Your task to perform on an android device: Turn off the flashlight Image 0: 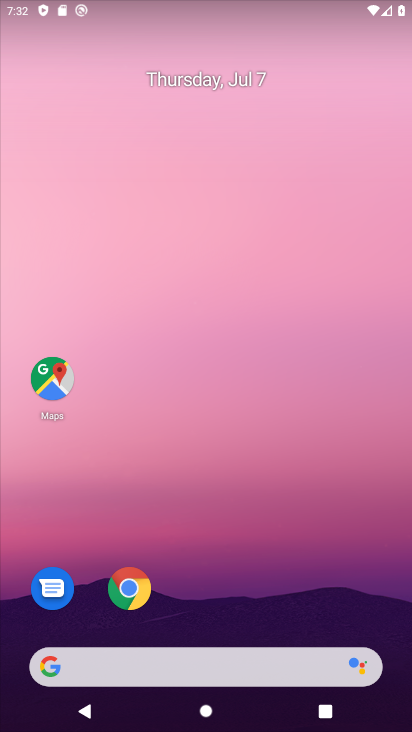
Step 0: drag from (235, 524) to (252, 220)
Your task to perform on an android device: Turn off the flashlight Image 1: 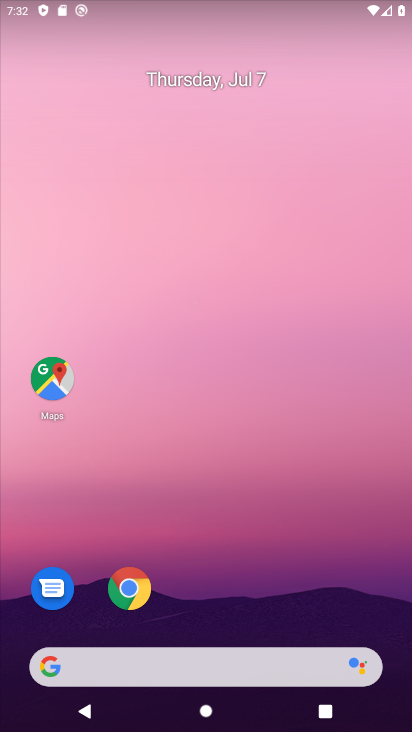
Step 1: drag from (213, 606) to (223, 207)
Your task to perform on an android device: Turn off the flashlight Image 2: 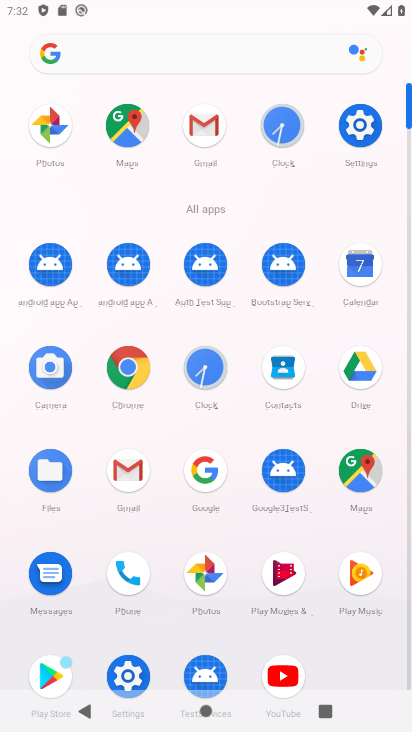
Step 2: click (361, 127)
Your task to perform on an android device: Turn off the flashlight Image 3: 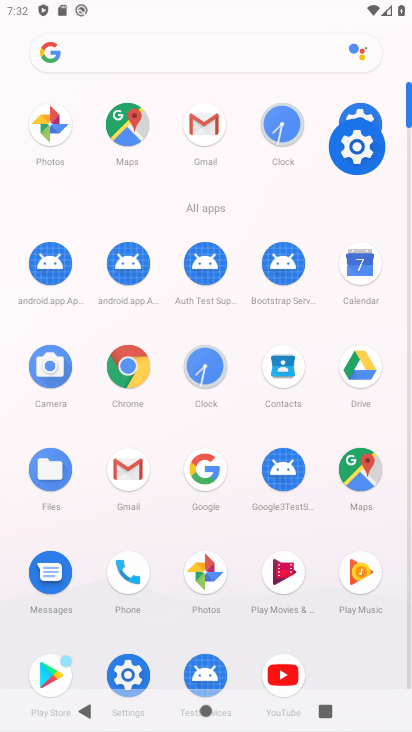
Step 3: click (361, 144)
Your task to perform on an android device: Turn off the flashlight Image 4: 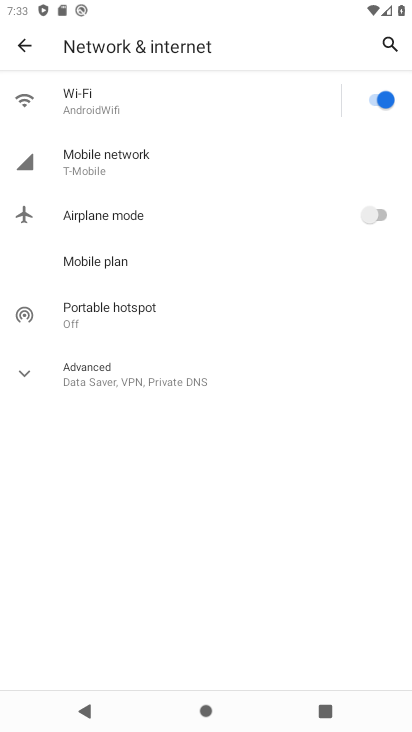
Step 4: click (27, 53)
Your task to perform on an android device: Turn off the flashlight Image 5: 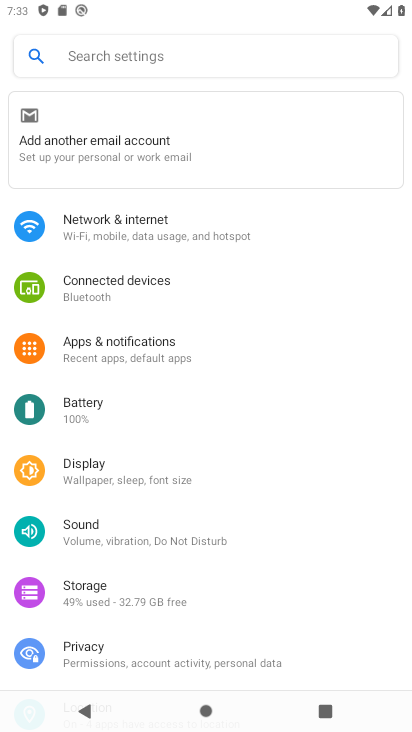
Step 5: click (123, 68)
Your task to perform on an android device: Turn off the flashlight Image 6: 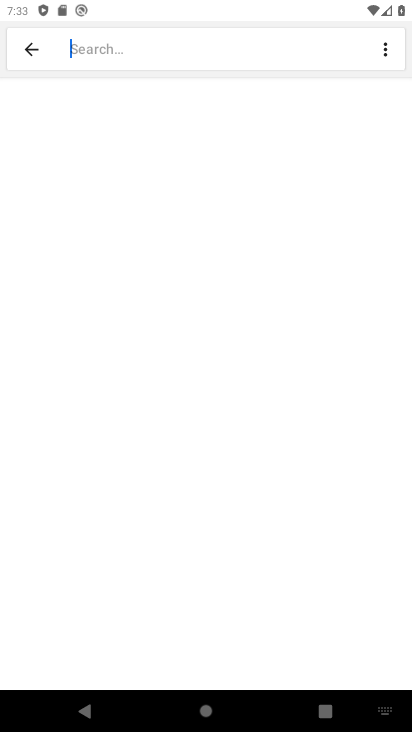
Step 6: click (121, 44)
Your task to perform on an android device: Turn off the flashlight Image 7: 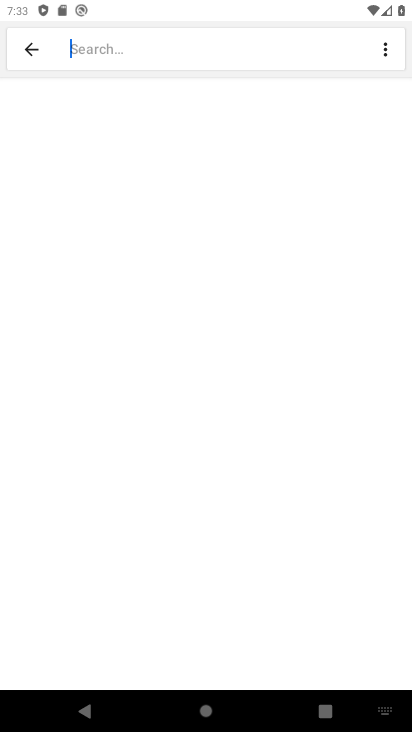
Step 7: type " flashlight"
Your task to perform on an android device: Turn off the flashlight Image 8: 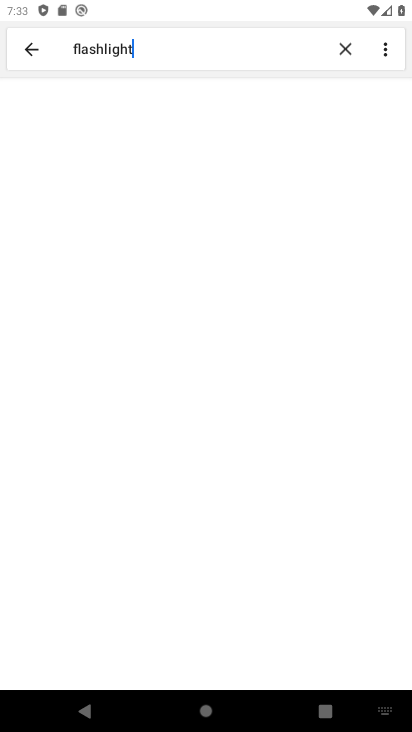
Step 8: type ""
Your task to perform on an android device: Turn off the flashlight Image 9: 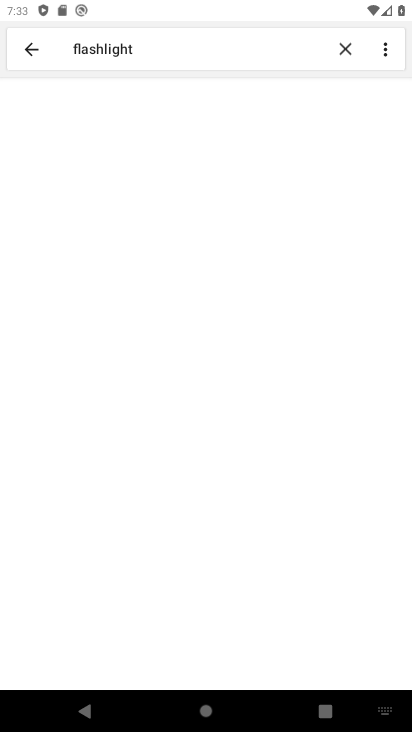
Step 9: drag from (232, 461) to (248, 229)
Your task to perform on an android device: Turn off the flashlight Image 10: 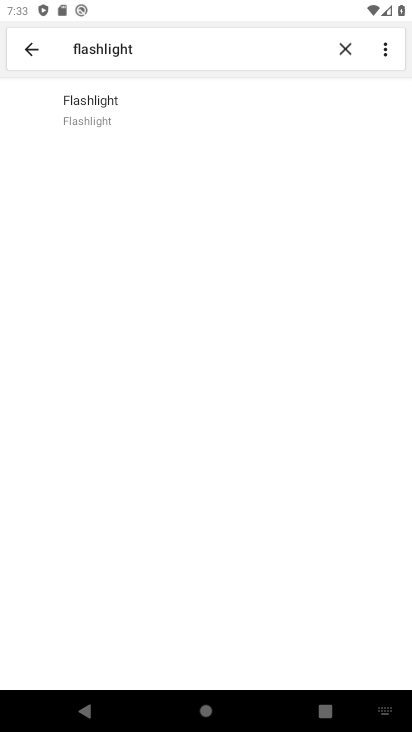
Step 10: click (119, 95)
Your task to perform on an android device: Turn off the flashlight Image 11: 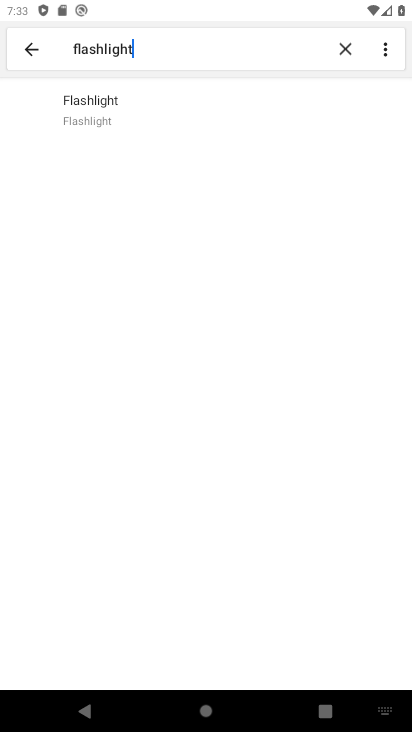
Step 11: drag from (256, 419) to (256, 215)
Your task to perform on an android device: Turn off the flashlight Image 12: 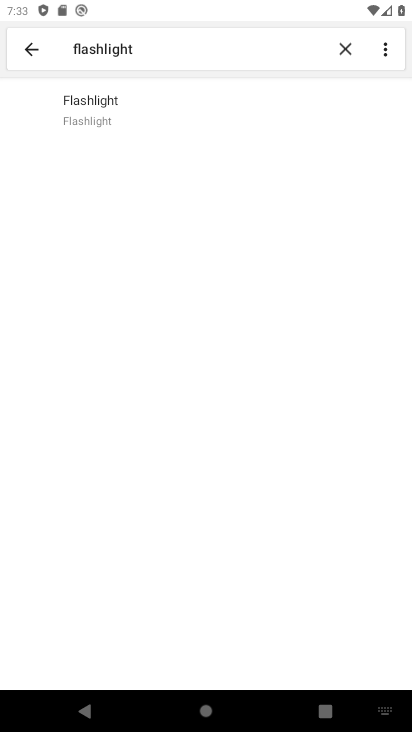
Step 12: click (133, 99)
Your task to perform on an android device: Turn off the flashlight Image 13: 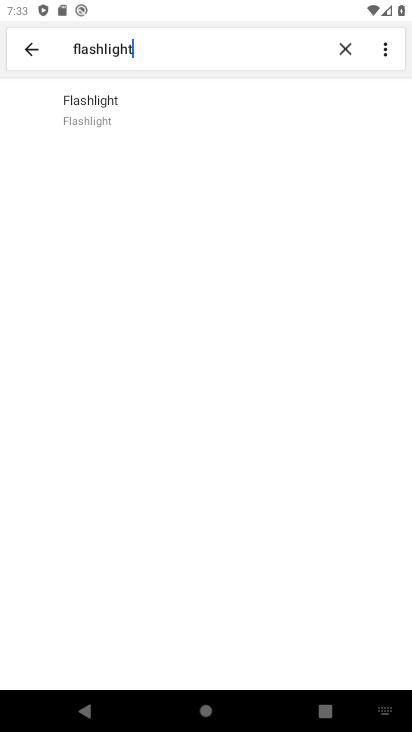
Step 13: drag from (331, 104) to (184, 130)
Your task to perform on an android device: Turn off the flashlight Image 14: 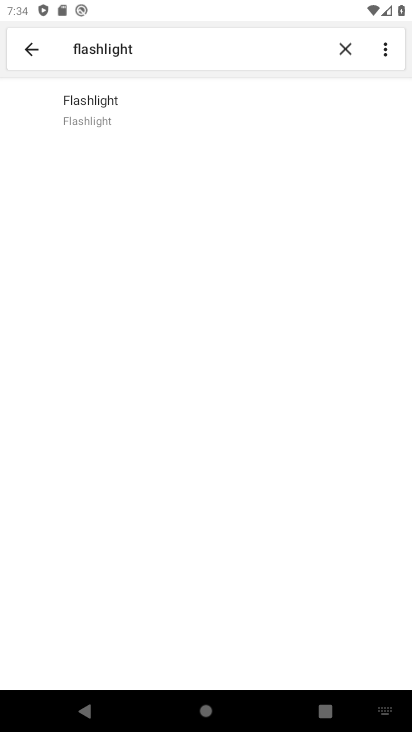
Step 14: click (114, 114)
Your task to perform on an android device: Turn off the flashlight Image 15: 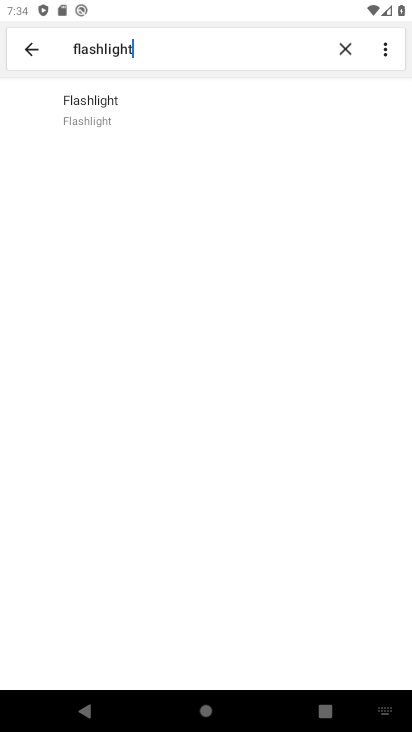
Step 15: task complete